Your task to perform on an android device: show emergency info Image 0: 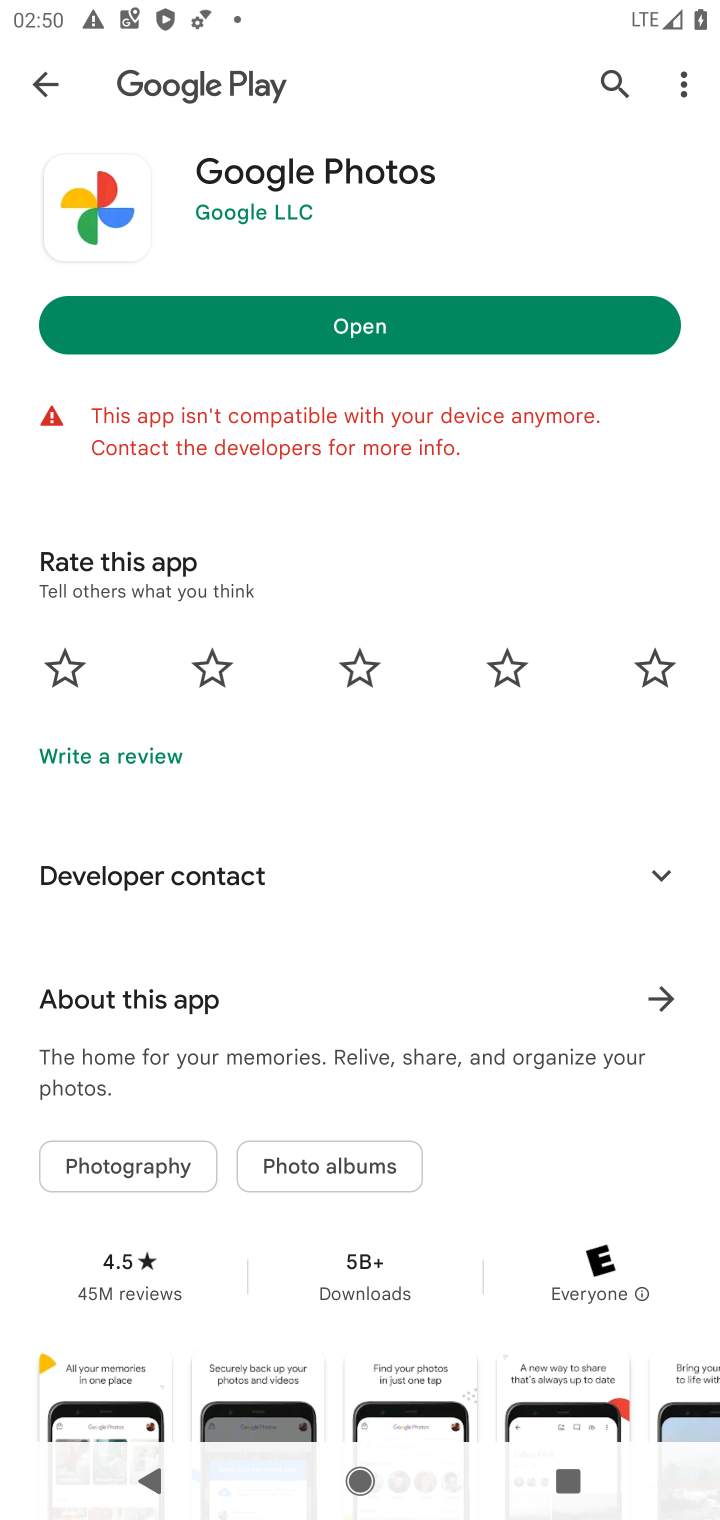
Step 0: press home button
Your task to perform on an android device: show emergency info Image 1: 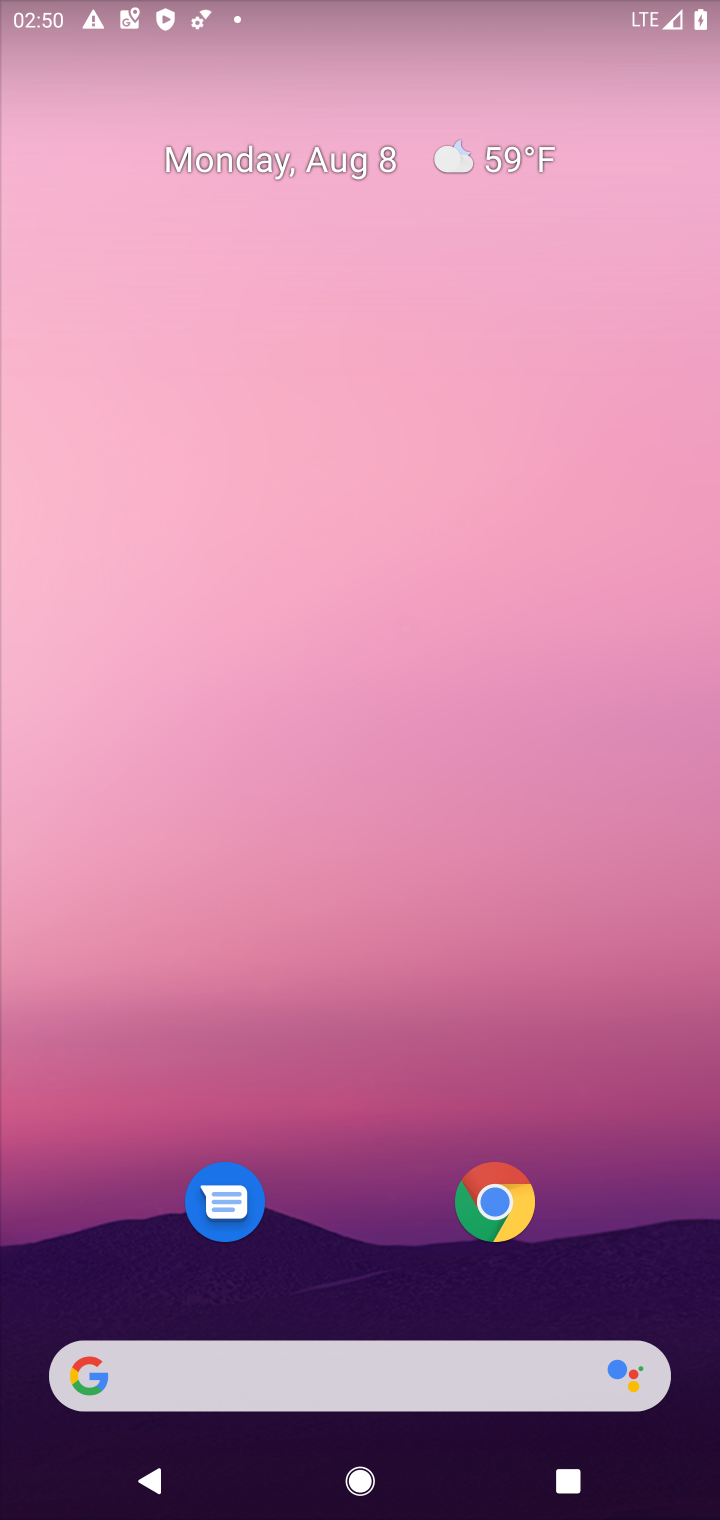
Step 1: drag from (366, 850) to (497, 28)
Your task to perform on an android device: show emergency info Image 2: 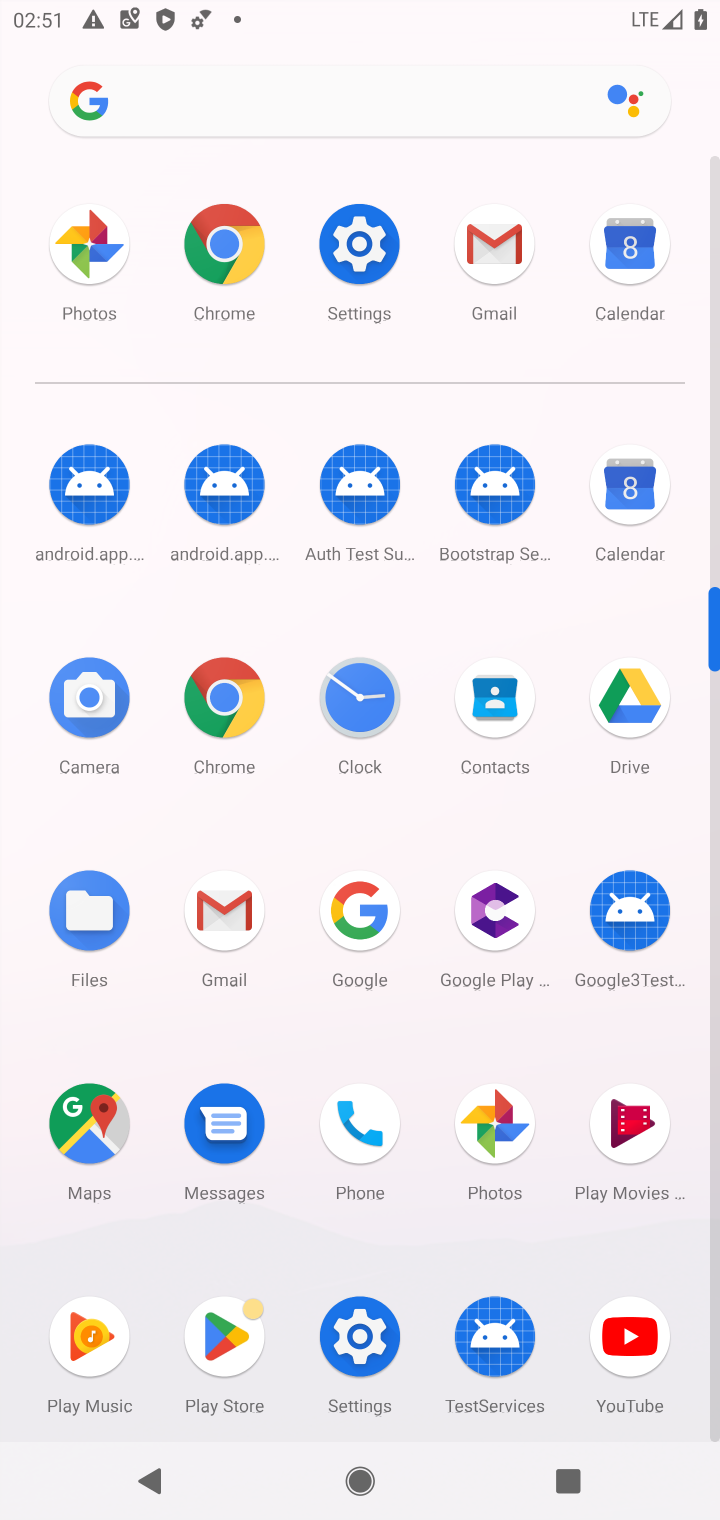
Step 2: click (353, 258)
Your task to perform on an android device: show emergency info Image 3: 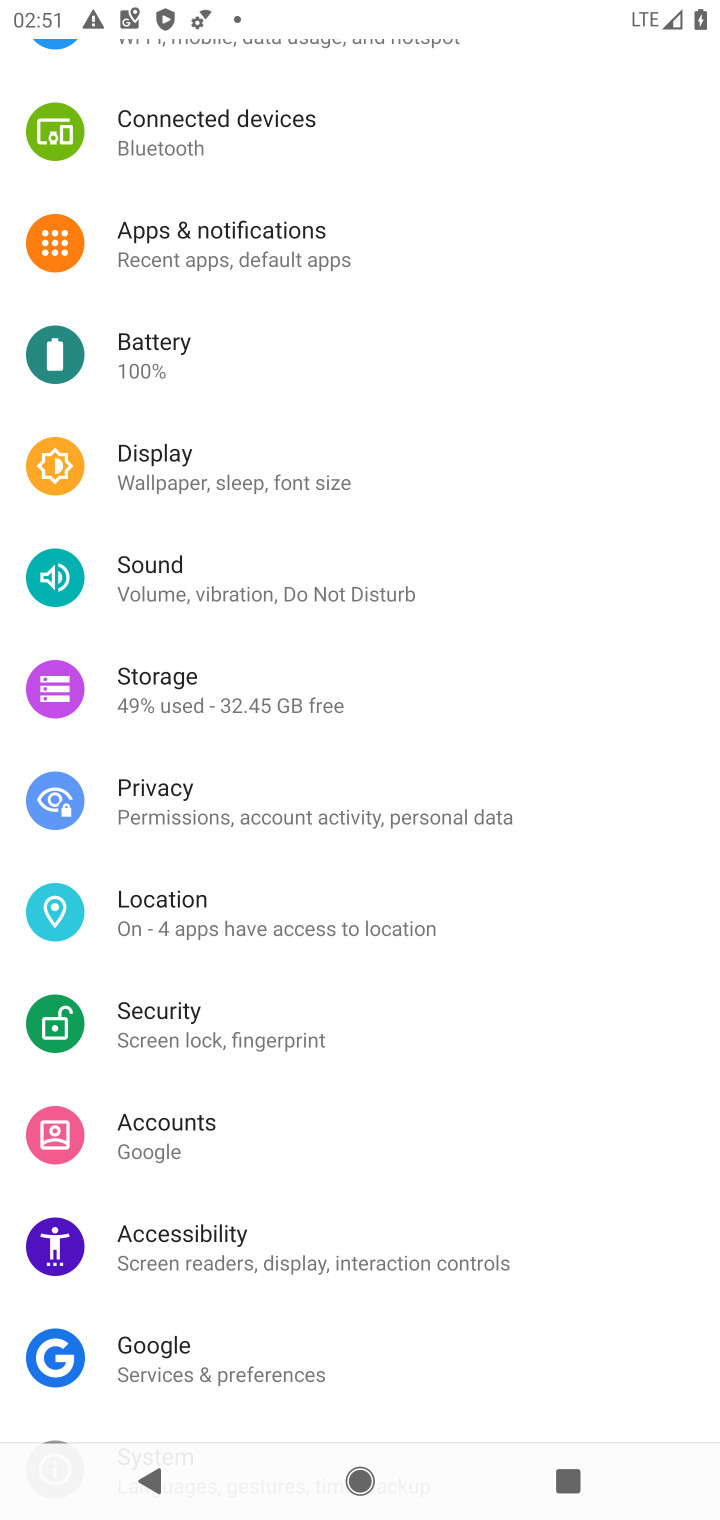
Step 3: drag from (261, 561) to (295, 449)
Your task to perform on an android device: show emergency info Image 4: 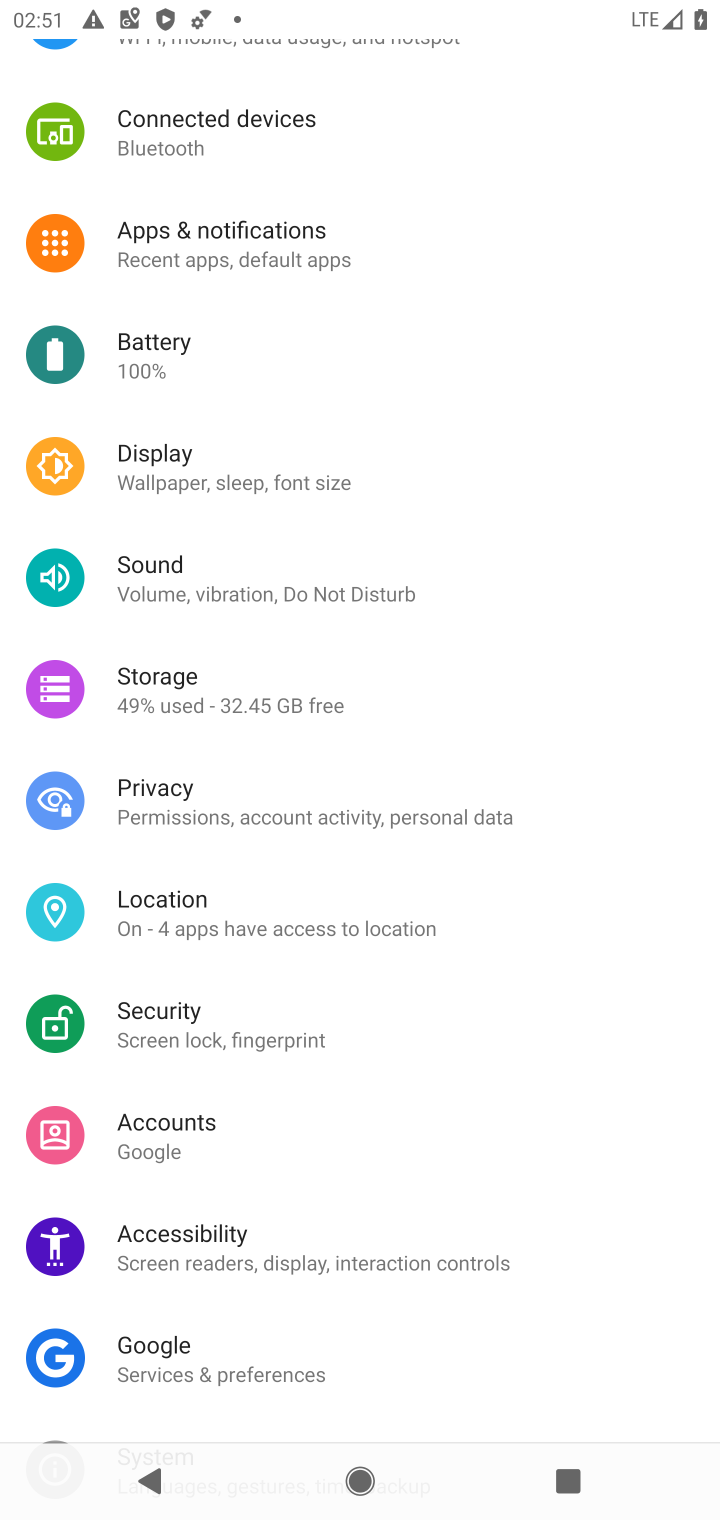
Step 4: drag from (308, 1282) to (396, 811)
Your task to perform on an android device: show emergency info Image 5: 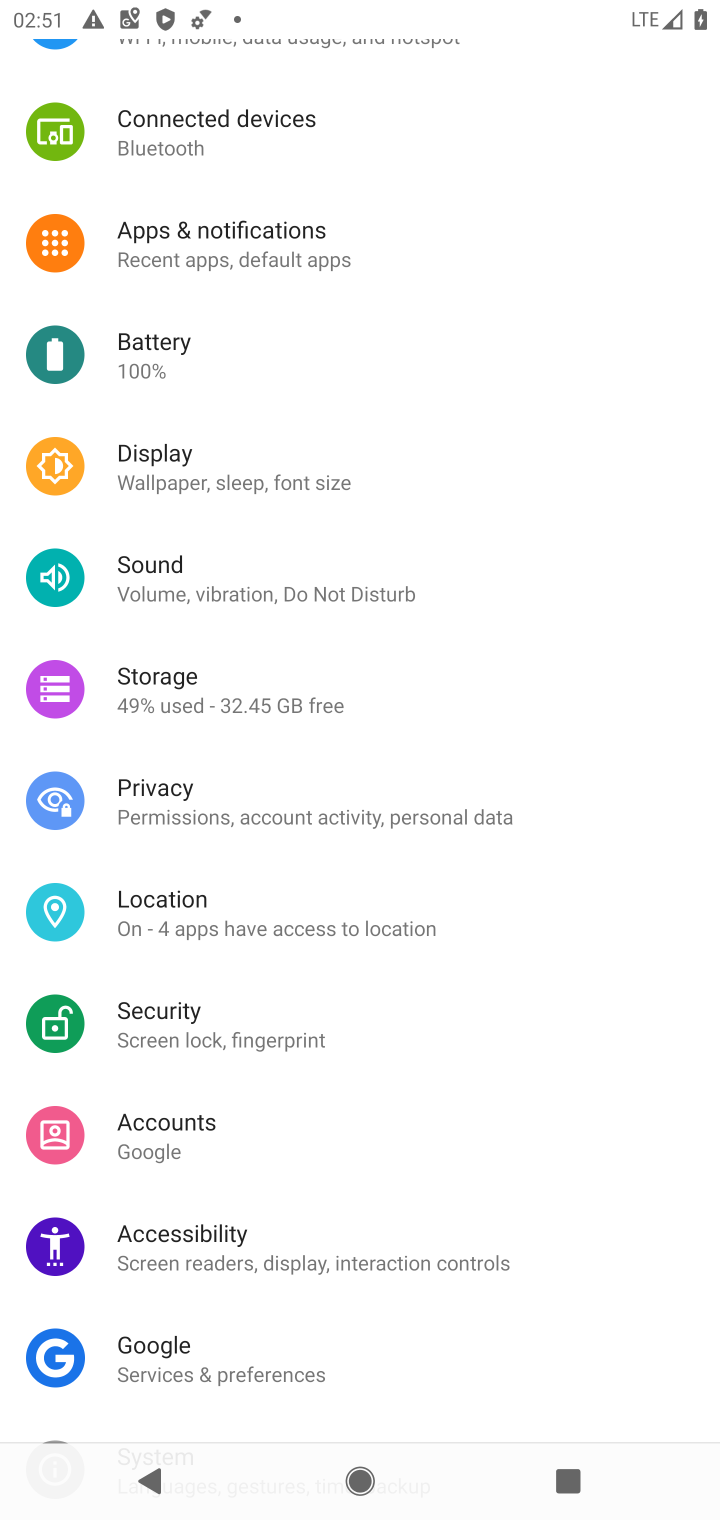
Step 5: drag from (308, 985) to (308, 654)
Your task to perform on an android device: show emergency info Image 6: 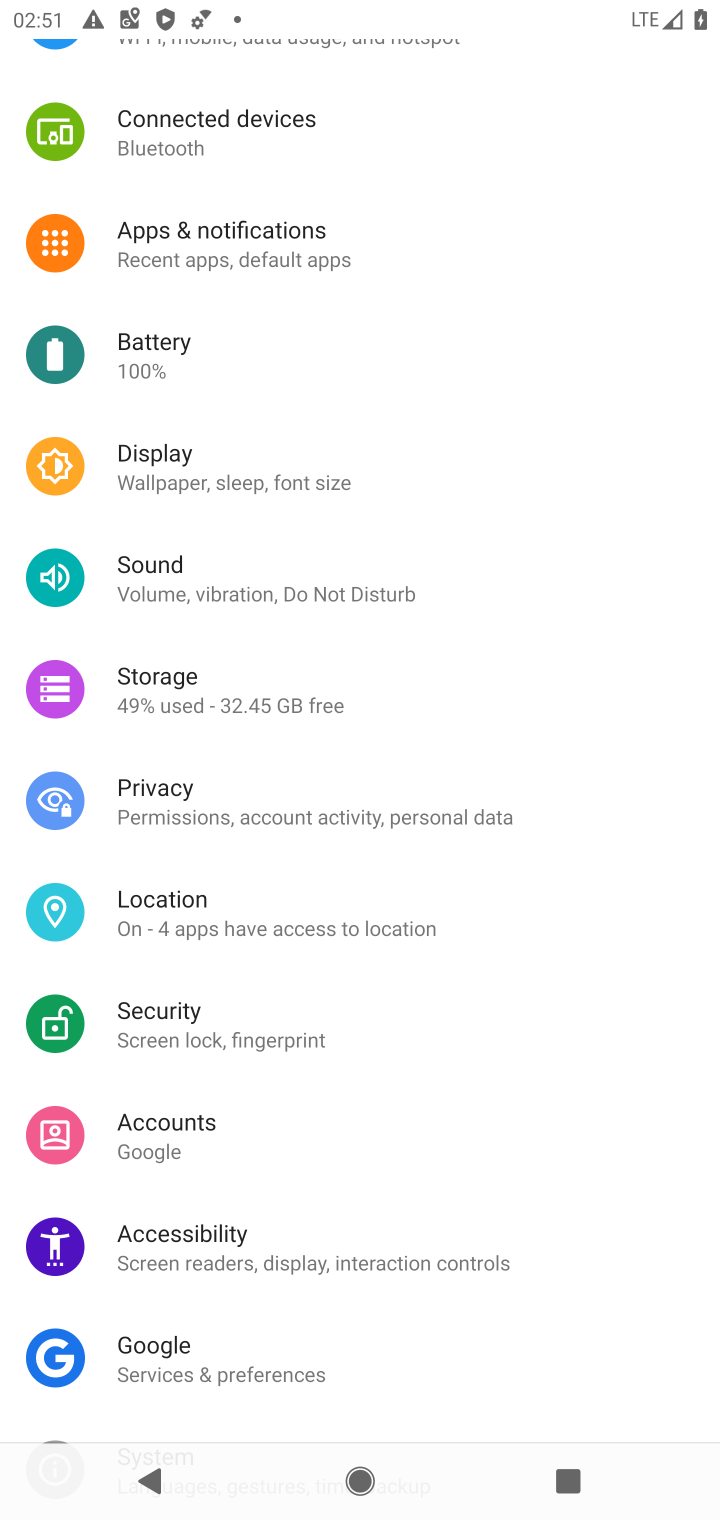
Step 6: drag from (252, 1254) to (291, 593)
Your task to perform on an android device: show emergency info Image 7: 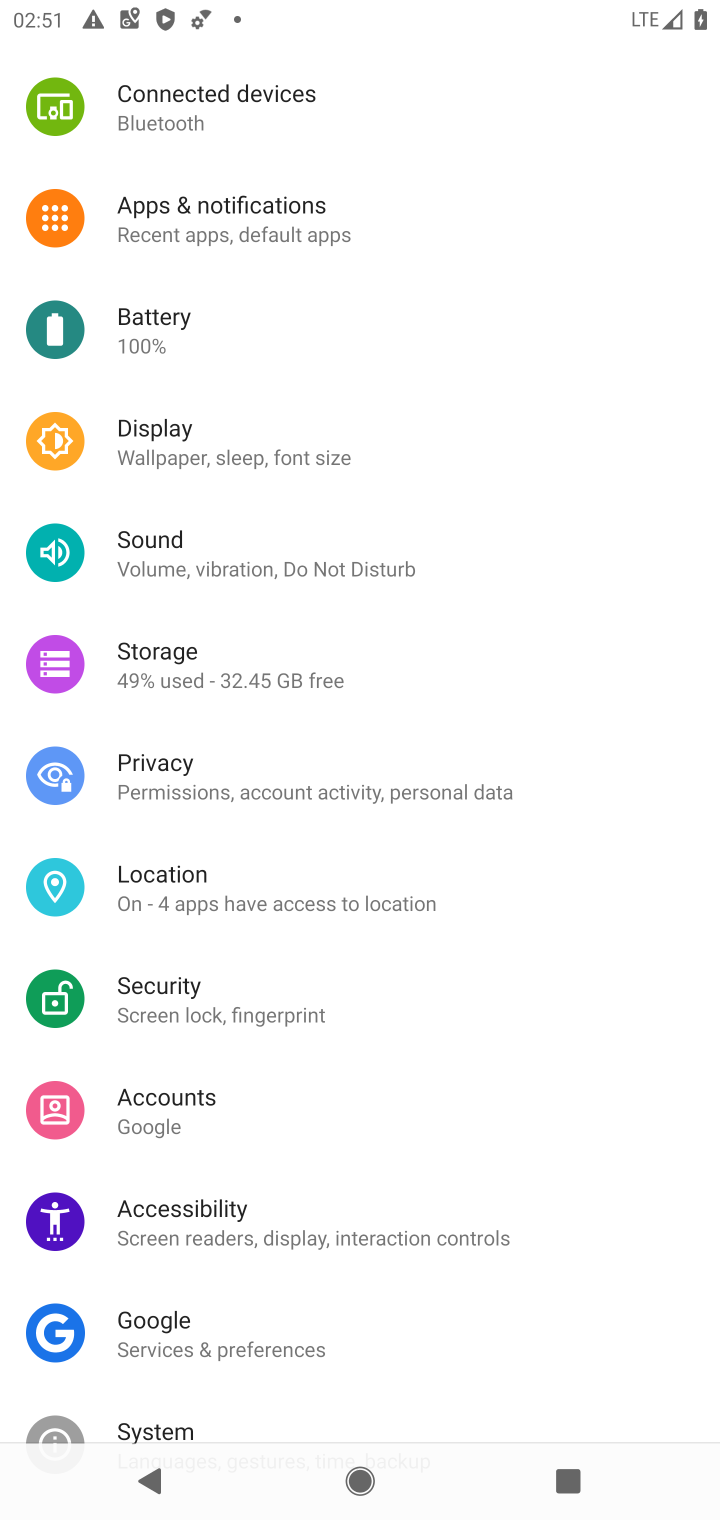
Step 7: drag from (243, 1270) to (337, 406)
Your task to perform on an android device: show emergency info Image 8: 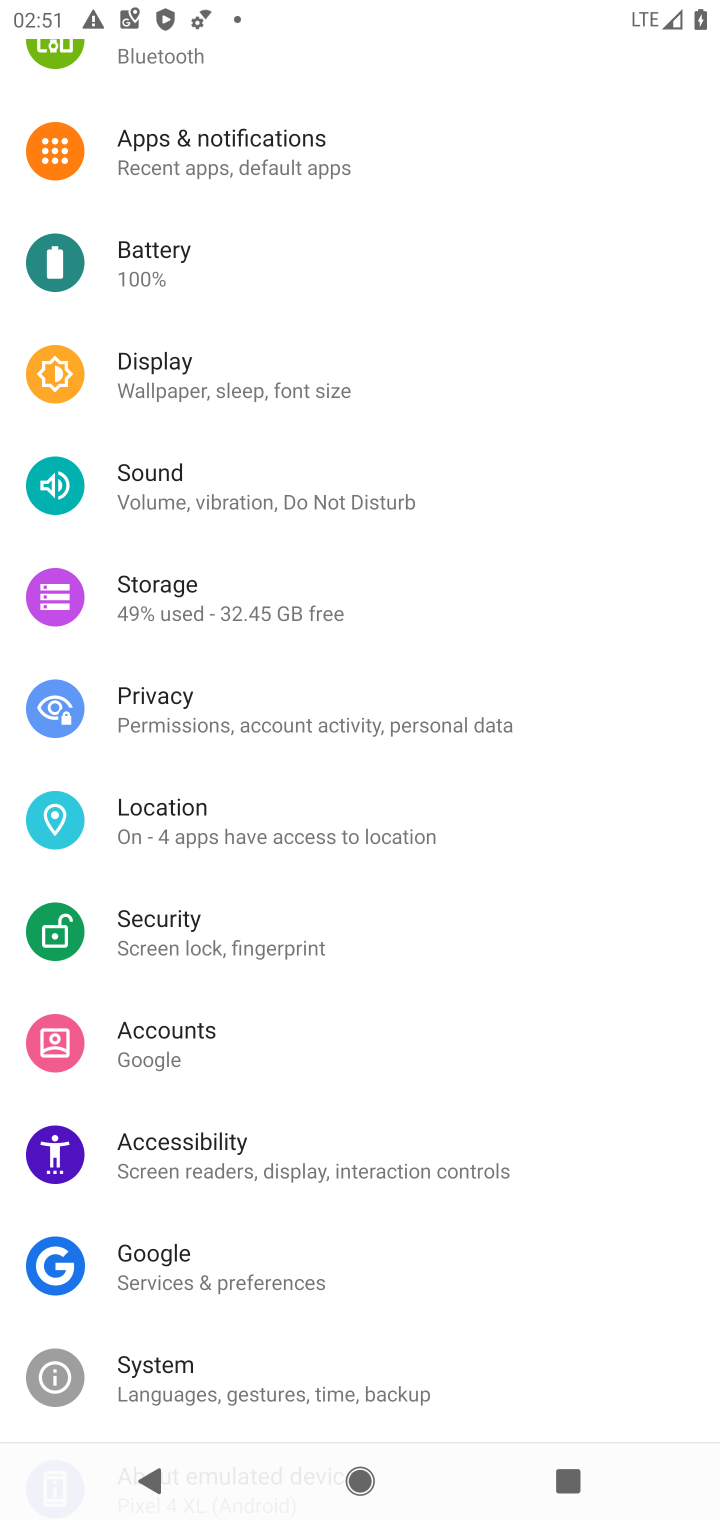
Step 8: click (252, 671)
Your task to perform on an android device: show emergency info Image 9: 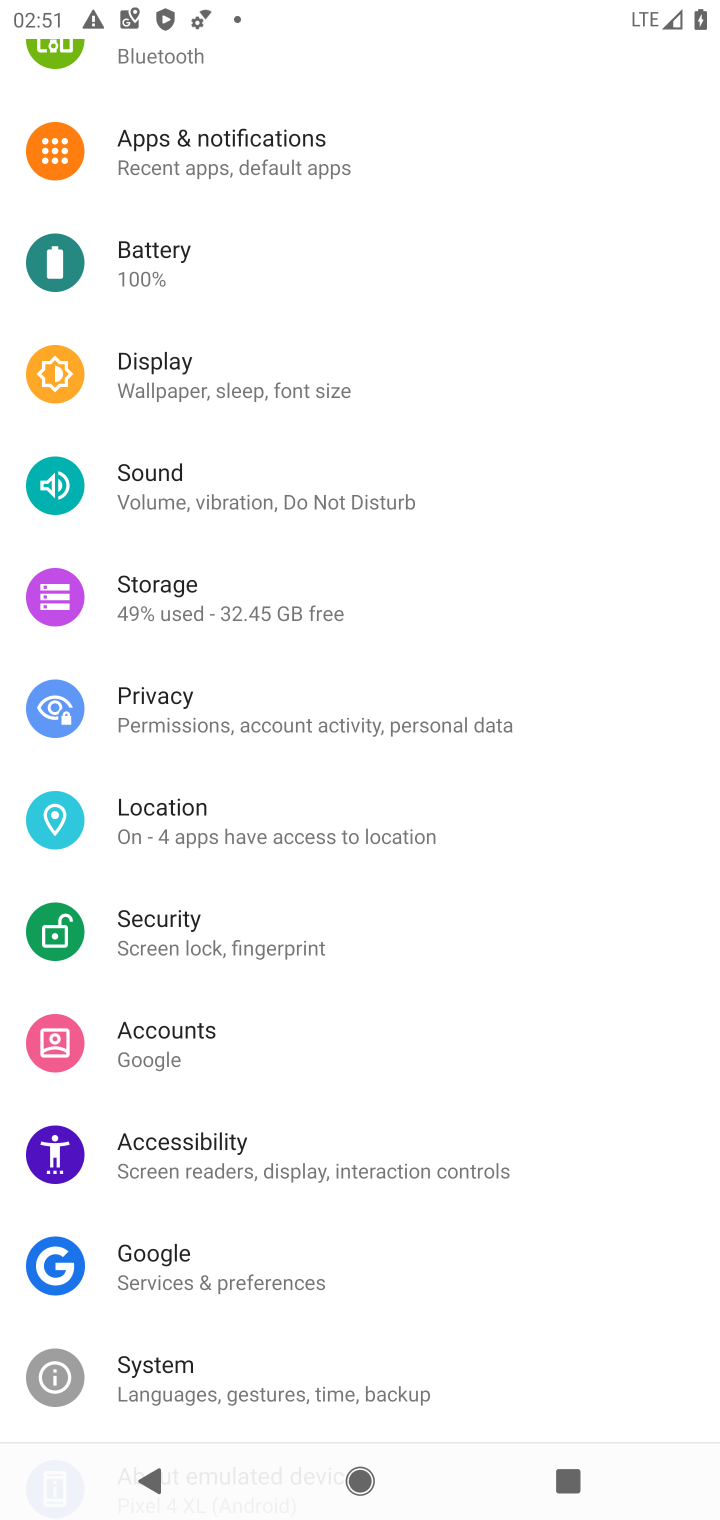
Step 9: drag from (252, 1197) to (252, 274)
Your task to perform on an android device: show emergency info Image 10: 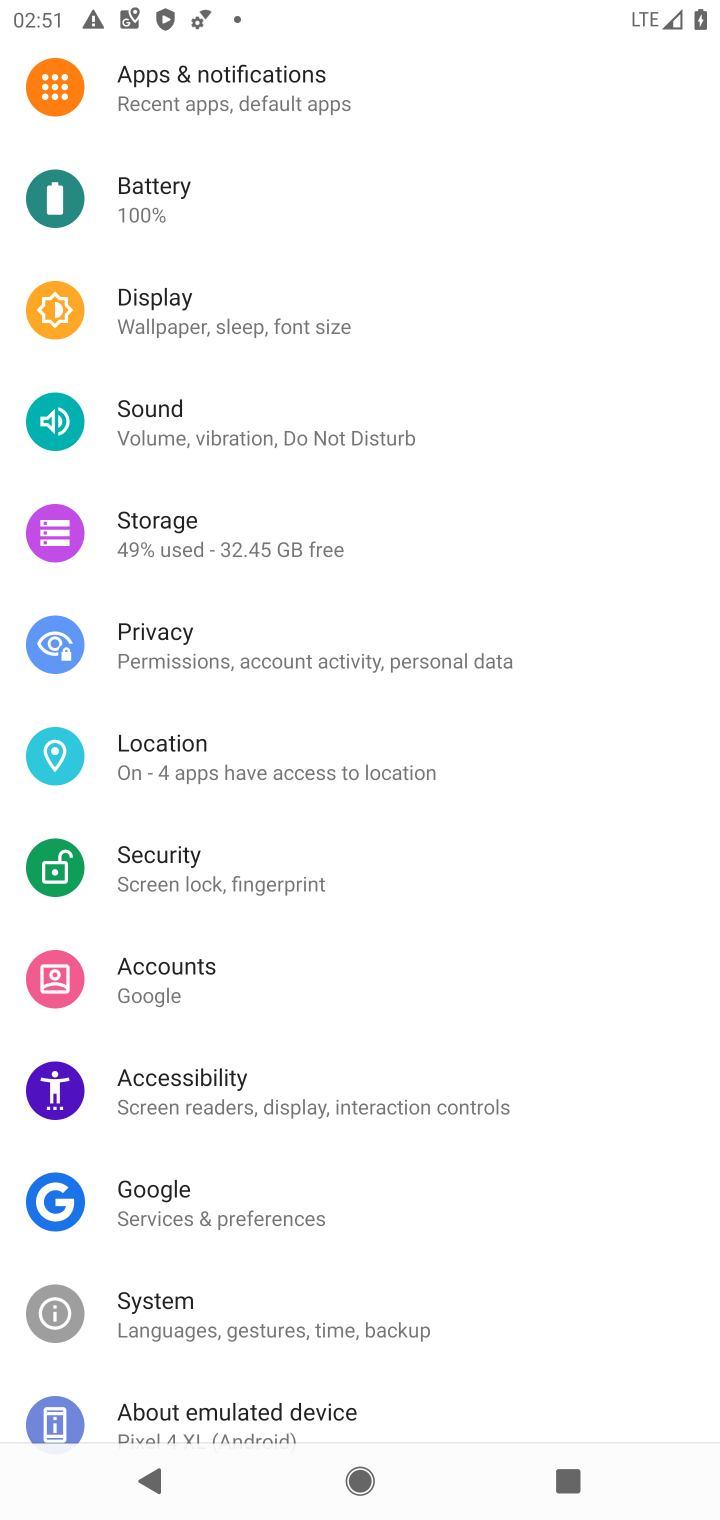
Step 10: click (130, 1412)
Your task to perform on an android device: show emergency info Image 11: 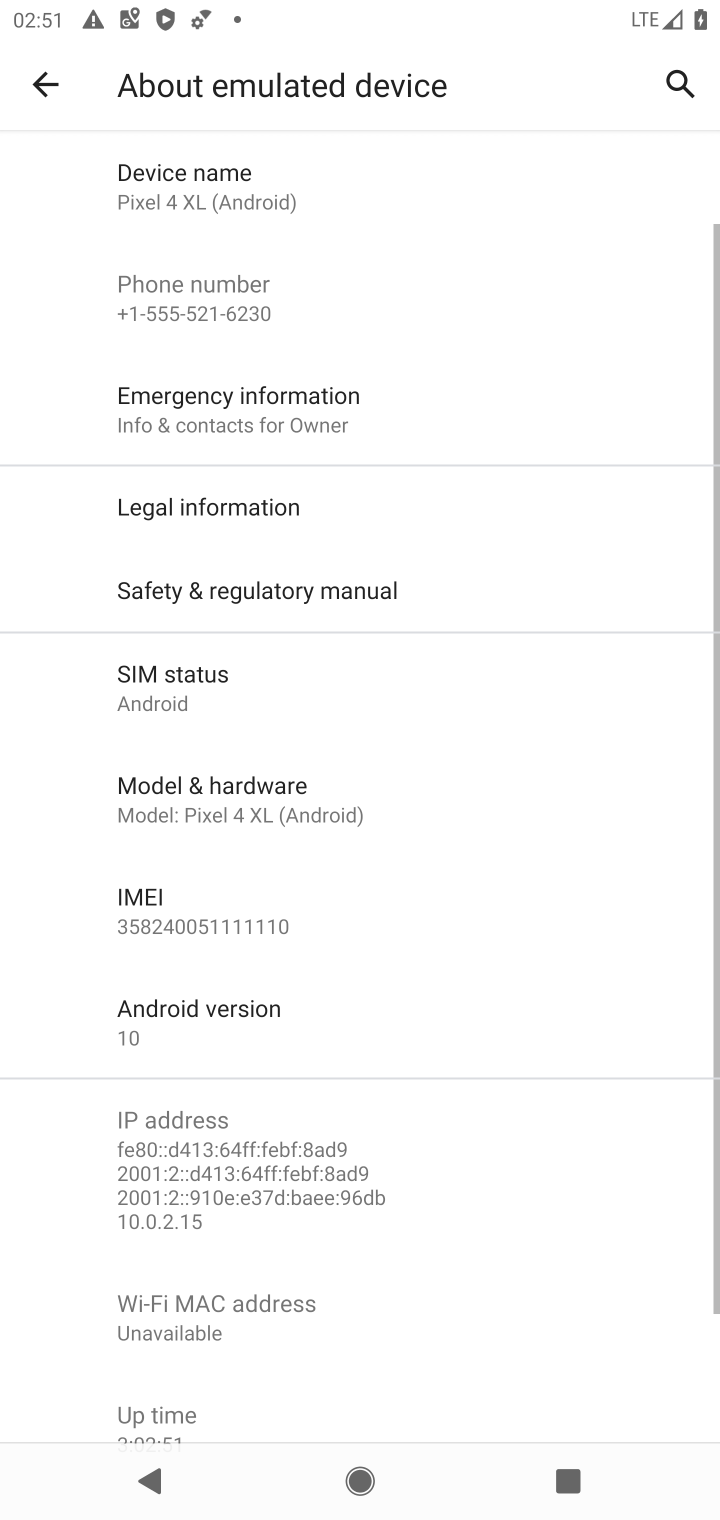
Step 11: click (150, 427)
Your task to perform on an android device: show emergency info Image 12: 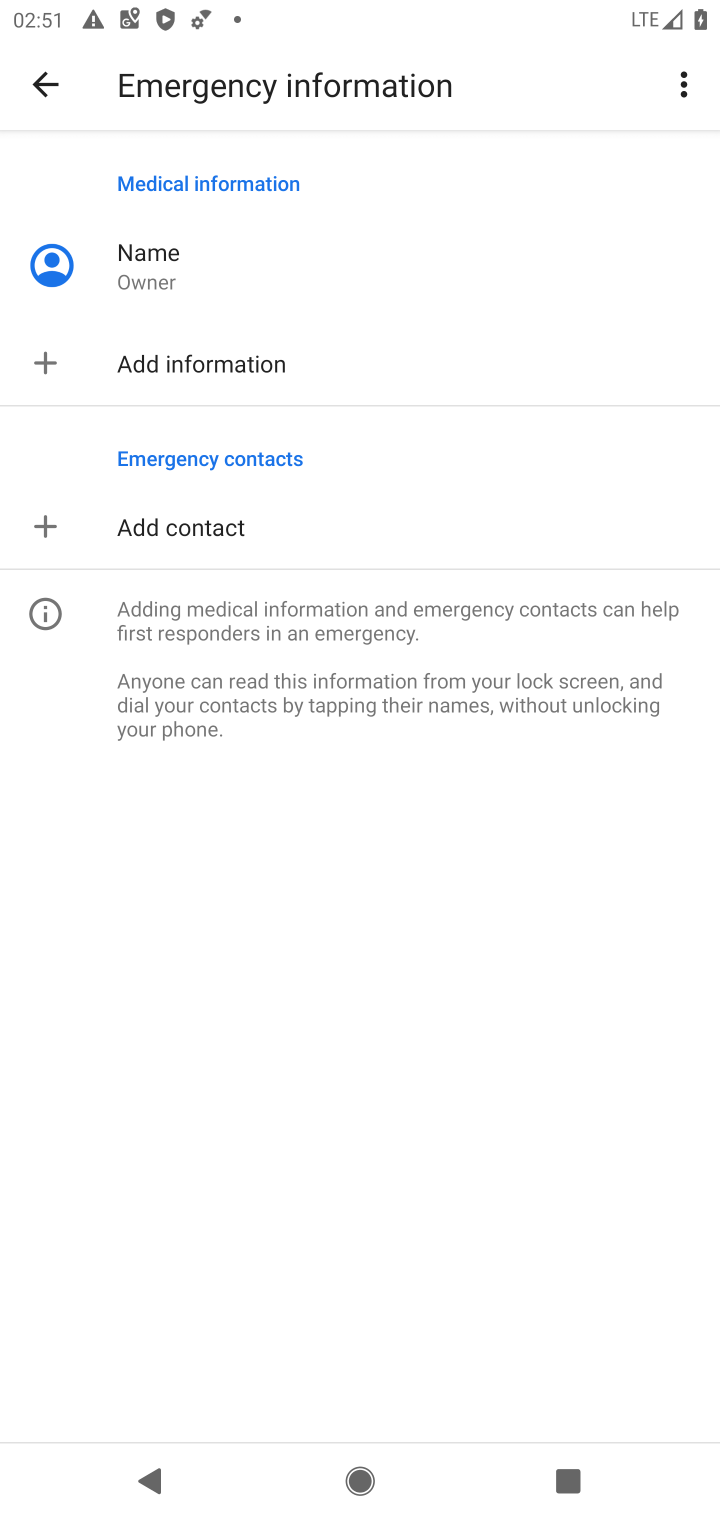
Step 12: task complete